Your task to perform on an android device: Show me popular videos on Youtube Image 0: 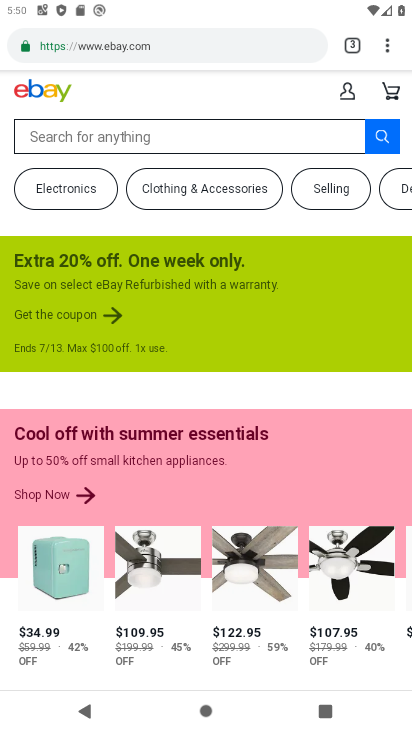
Step 0: press back button
Your task to perform on an android device: Show me popular videos on Youtube Image 1: 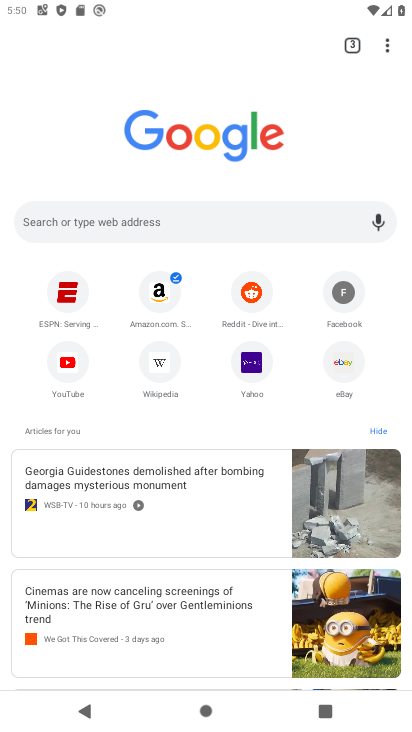
Step 1: press back button
Your task to perform on an android device: Show me popular videos on Youtube Image 2: 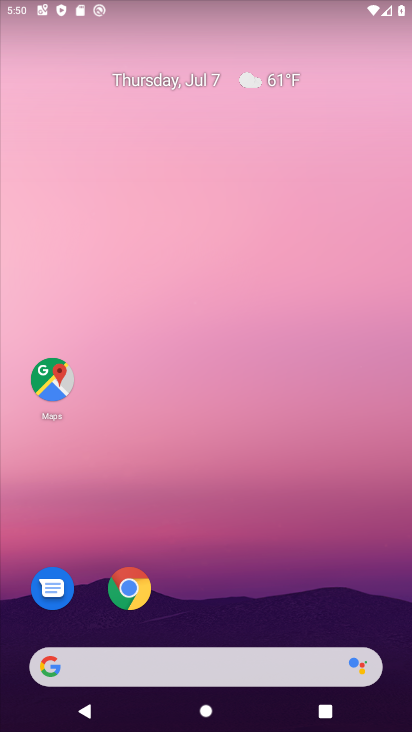
Step 2: drag from (268, 609) to (323, 91)
Your task to perform on an android device: Show me popular videos on Youtube Image 3: 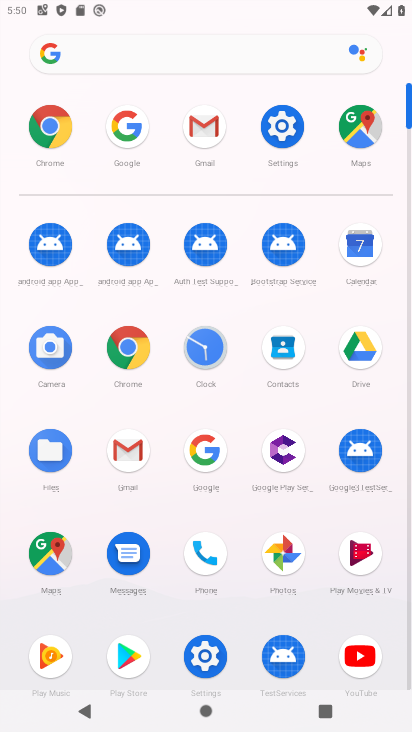
Step 3: click (361, 671)
Your task to perform on an android device: Show me popular videos on Youtube Image 4: 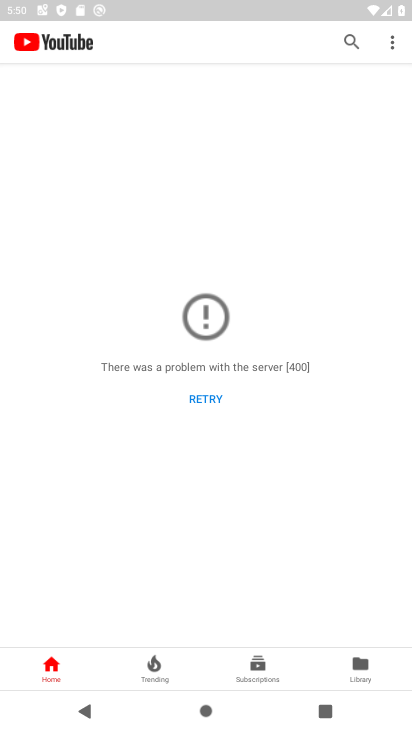
Step 4: click (157, 663)
Your task to perform on an android device: Show me popular videos on Youtube Image 5: 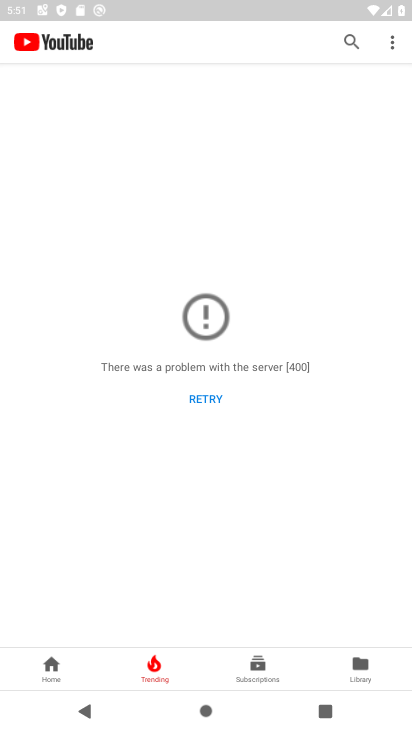
Step 5: task complete